Your task to perform on an android device: Check the weather Image 0: 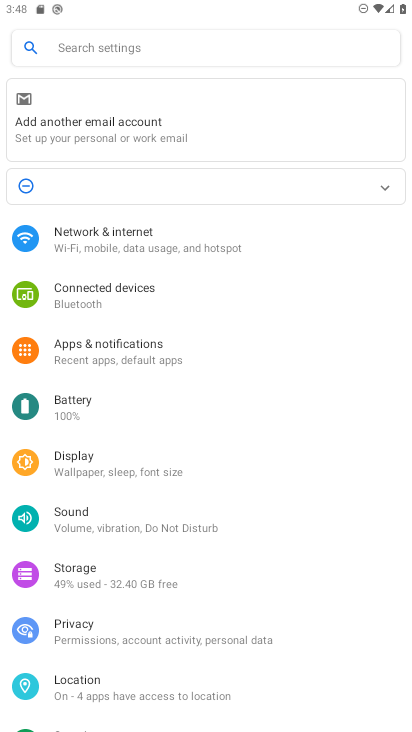
Step 0: press home button
Your task to perform on an android device: Check the weather Image 1: 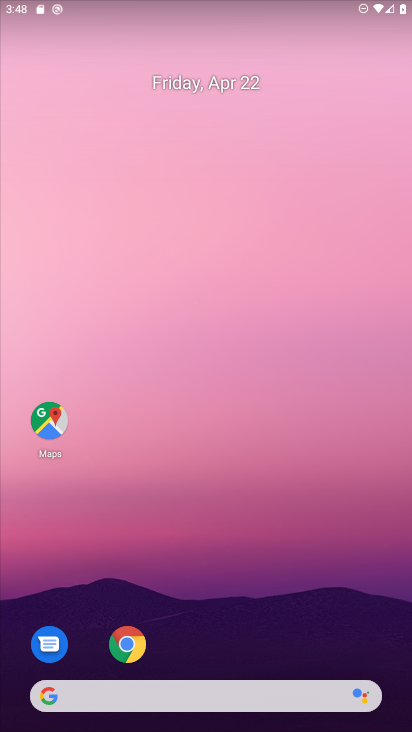
Step 1: click (121, 644)
Your task to perform on an android device: Check the weather Image 2: 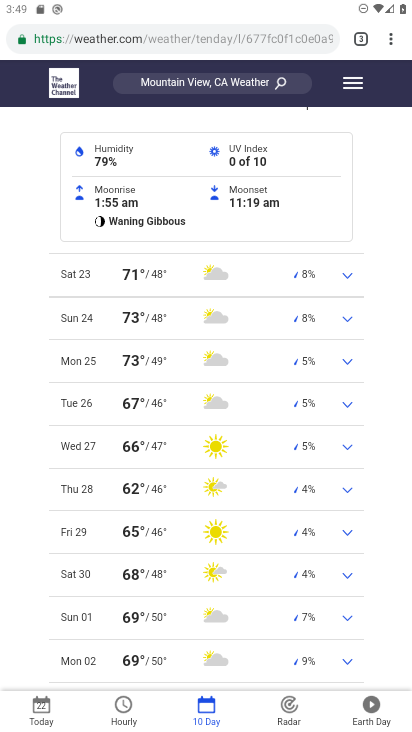
Step 2: task complete